Your task to perform on an android device: Go to eBay Image 0: 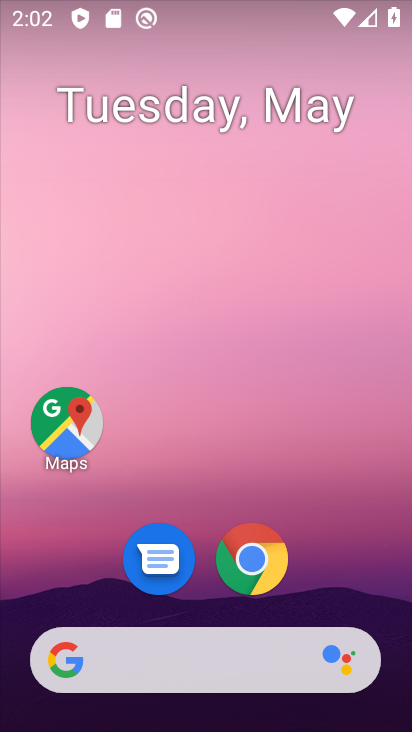
Step 0: click (249, 563)
Your task to perform on an android device: Go to eBay Image 1: 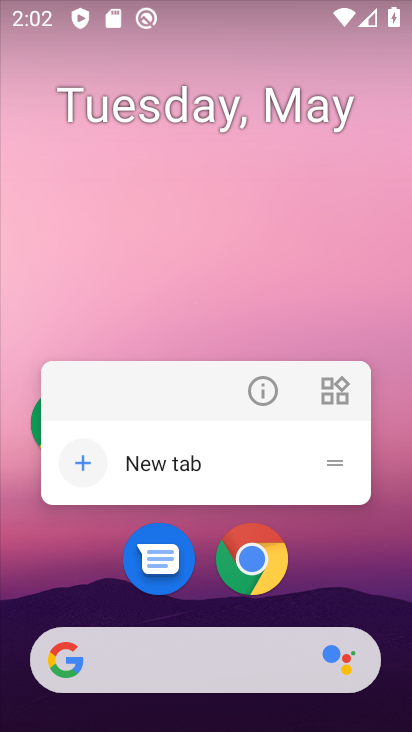
Step 1: click (250, 563)
Your task to perform on an android device: Go to eBay Image 2: 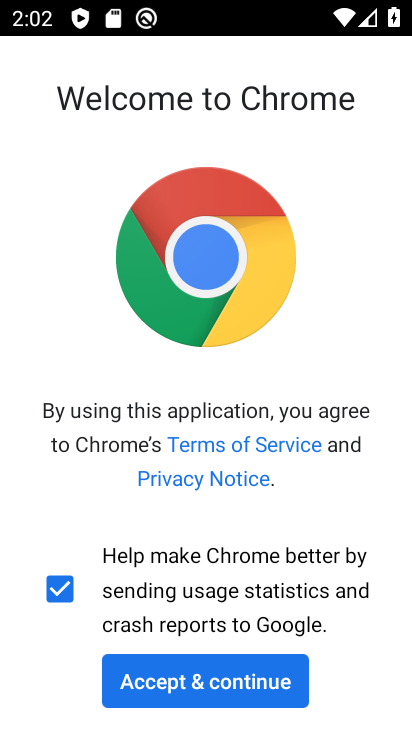
Step 2: click (230, 669)
Your task to perform on an android device: Go to eBay Image 3: 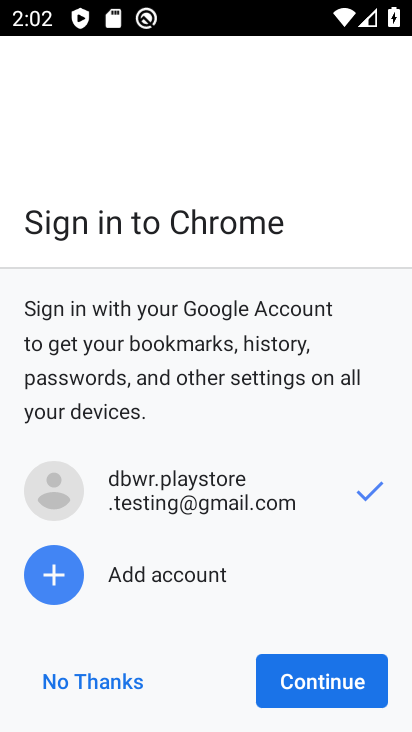
Step 3: click (314, 682)
Your task to perform on an android device: Go to eBay Image 4: 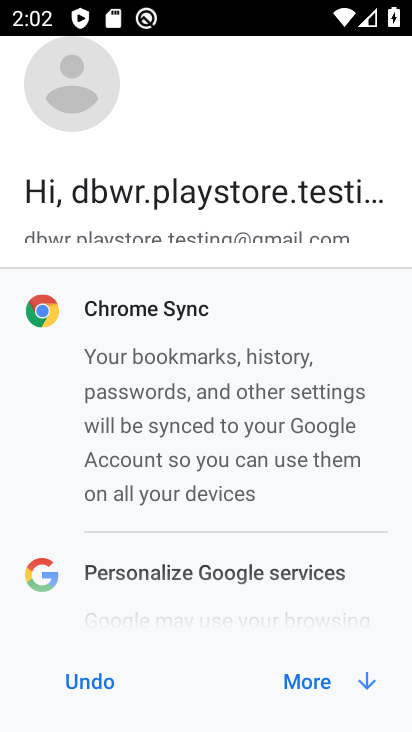
Step 4: click (314, 682)
Your task to perform on an android device: Go to eBay Image 5: 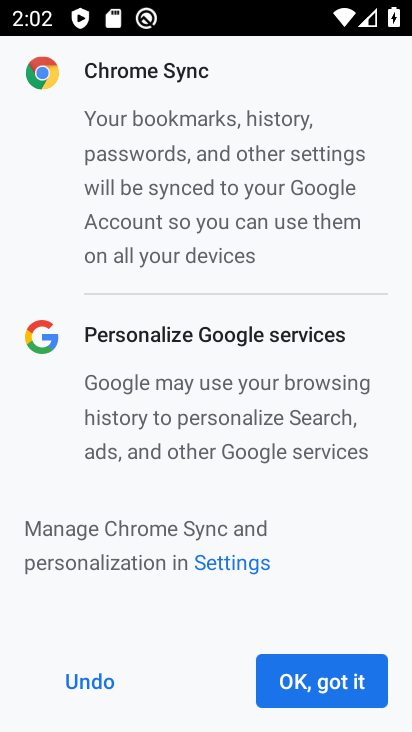
Step 5: click (313, 684)
Your task to perform on an android device: Go to eBay Image 6: 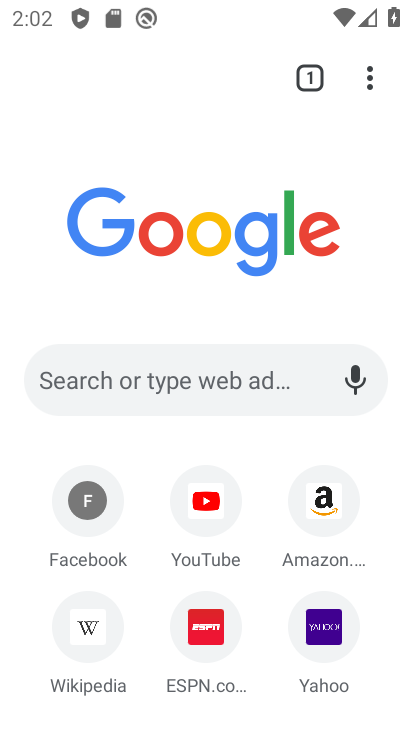
Step 6: drag from (253, 611) to (273, 426)
Your task to perform on an android device: Go to eBay Image 7: 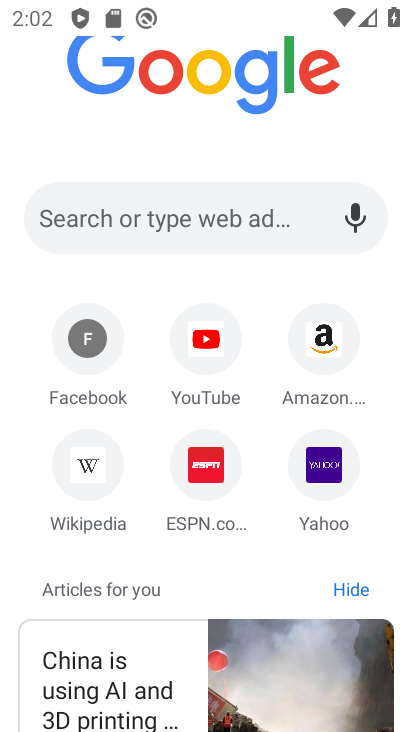
Step 7: click (145, 215)
Your task to perform on an android device: Go to eBay Image 8: 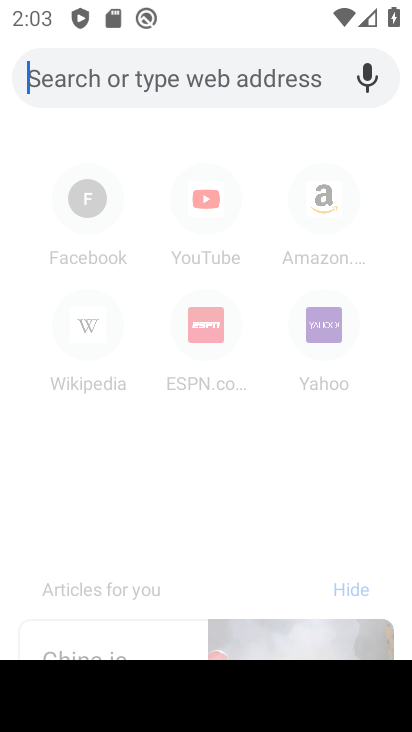
Step 8: type "ebay"
Your task to perform on an android device: Go to eBay Image 9: 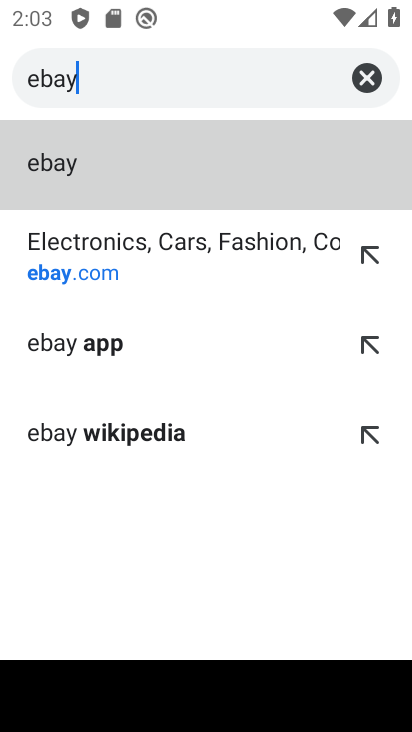
Step 9: click (128, 248)
Your task to perform on an android device: Go to eBay Image 10: 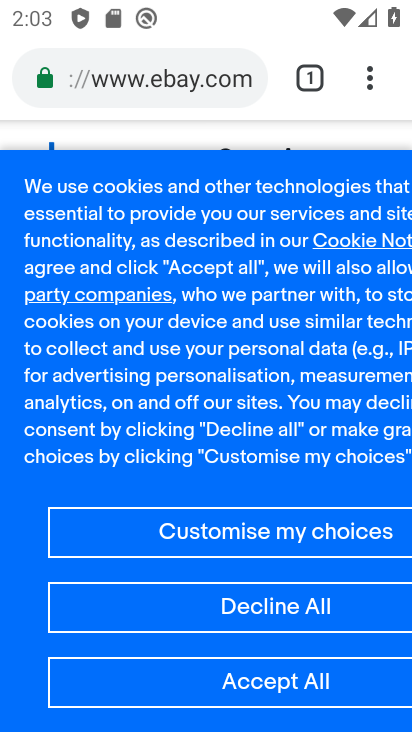
Step 10: task complete